Your task to perform on an android device: What's the news about the US dollar exchange rate? Image 0: 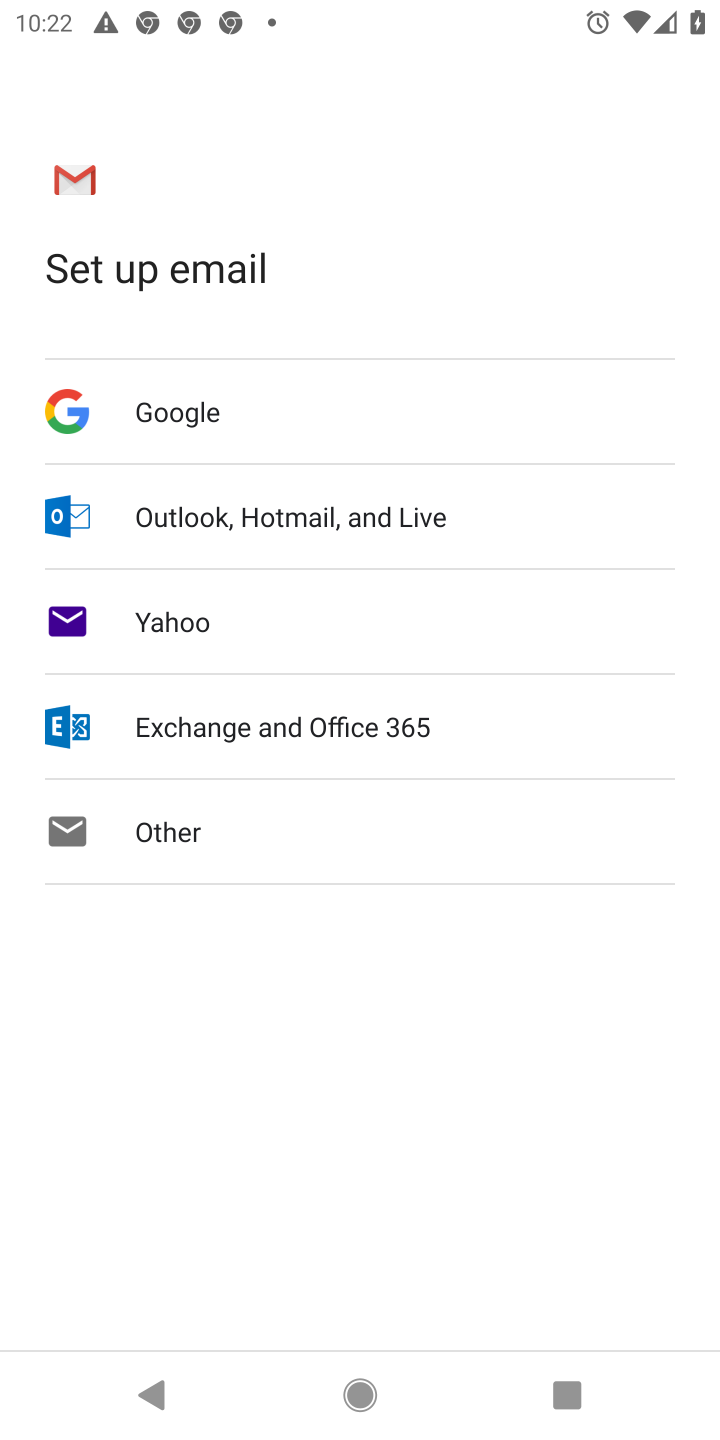
Step 0: press home button
Your task to perform on an android device: What's the news about the US dollar exchange rate? Image 1: 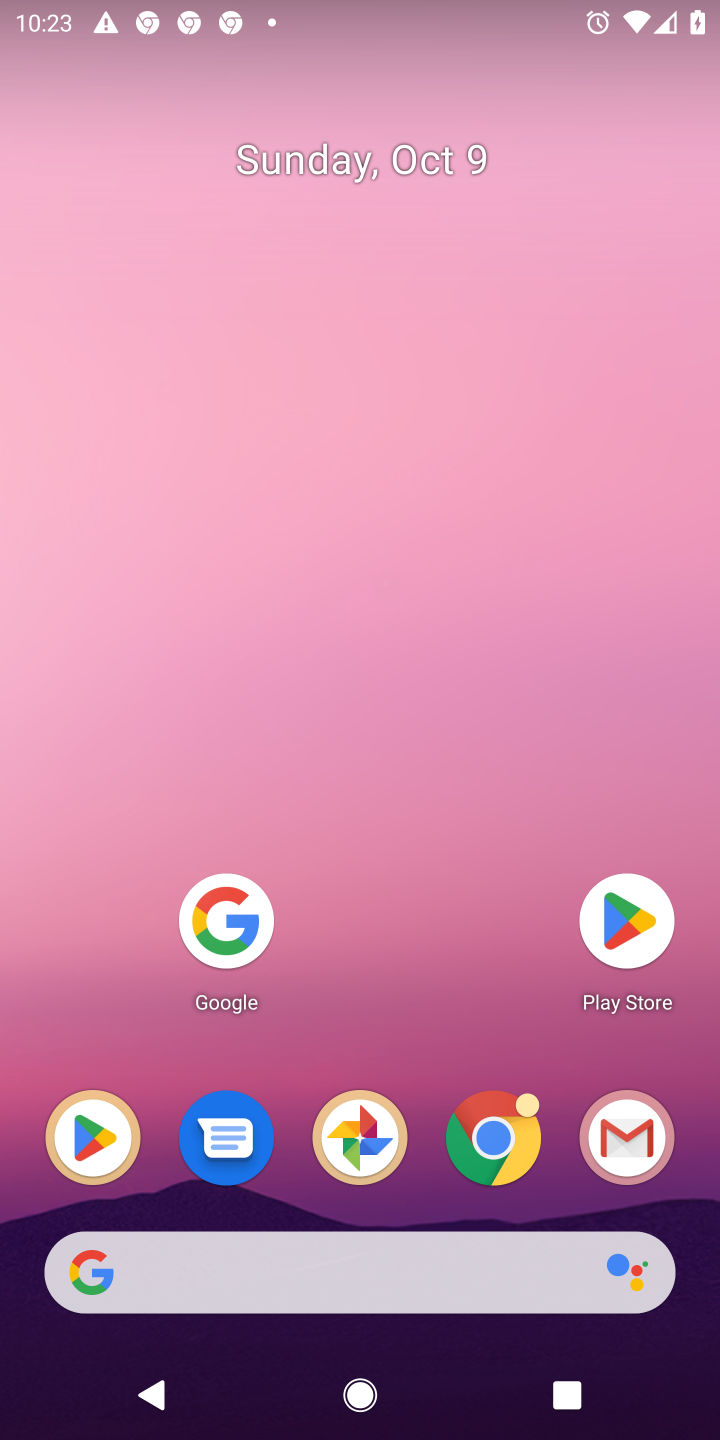
Step 1: click (247, 904)
Your task to perform on an android device: What's the news about the US dollar exchange rate? Image 2: 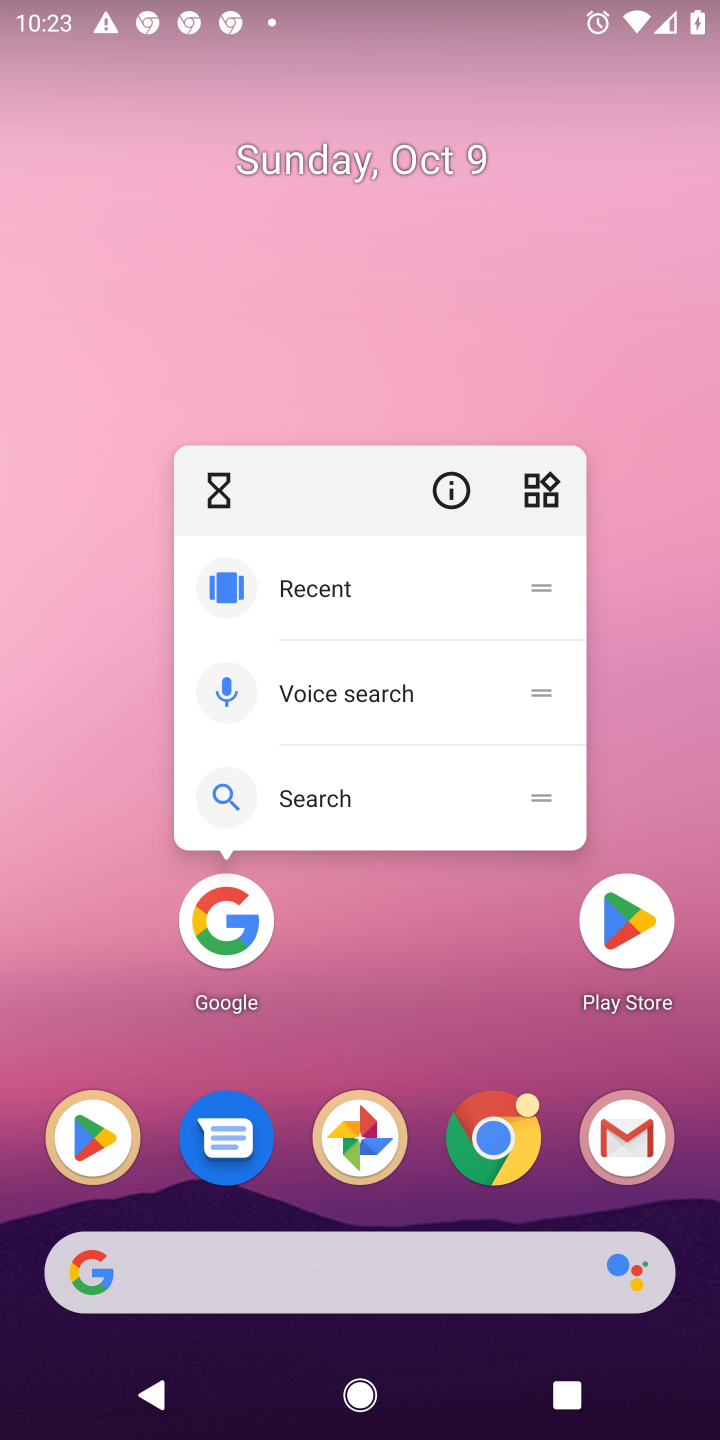
Step 2: click (228, 892)
Your task to perform on an android device: What's the news about the US dollar exchange rate? Image 3: 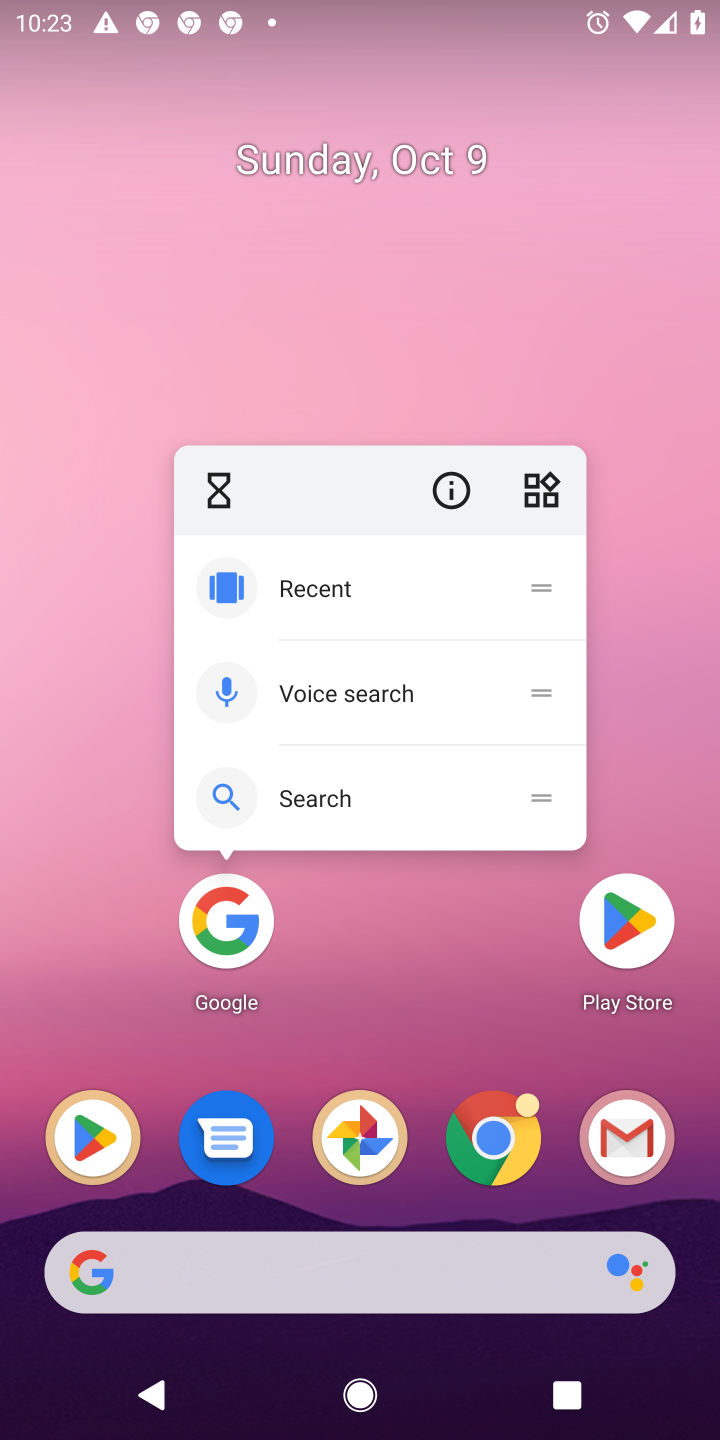
Step 3: click (228, 892)
Your task to perform on an android device: What's the news about the US dollar exchange rate? Image 4: 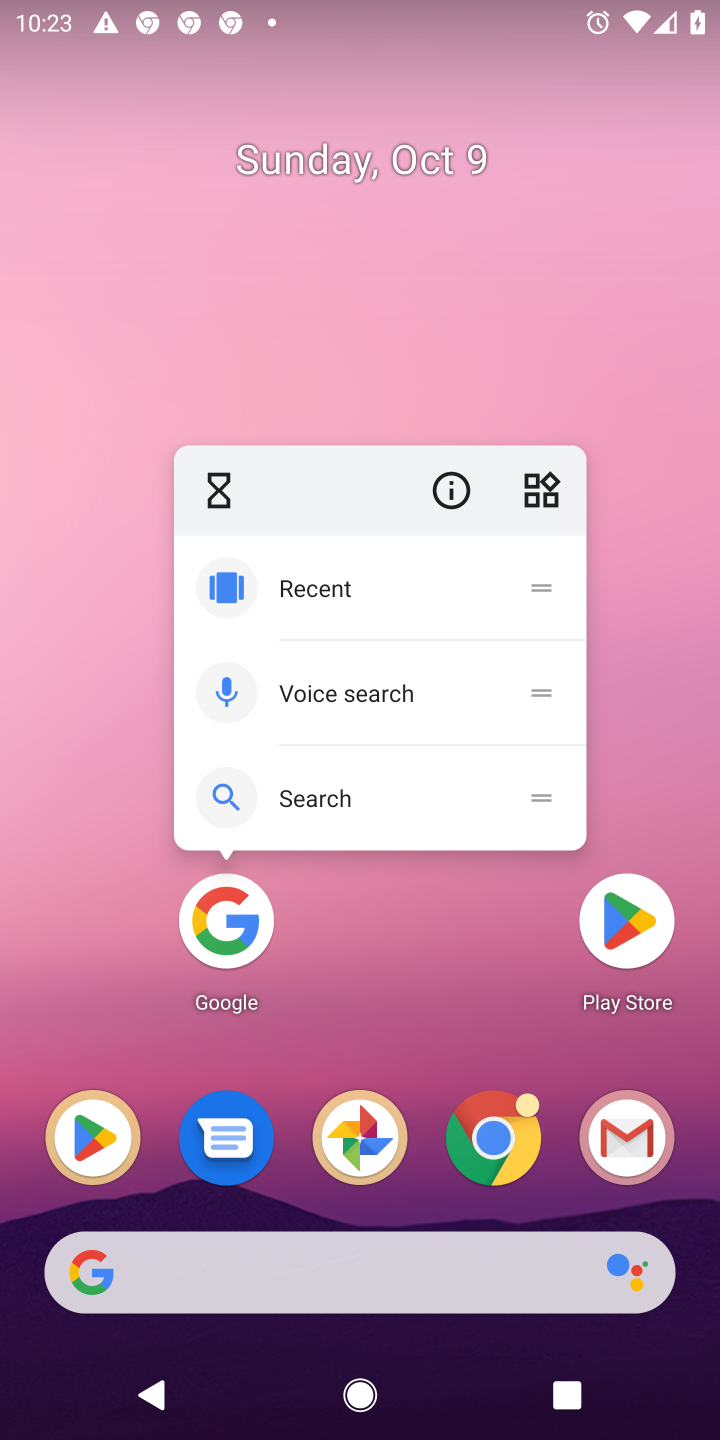
Step 4: click (225, 935)
Your task to perform on an android device: What's the news about the US dollar exchange rate? Image 5: 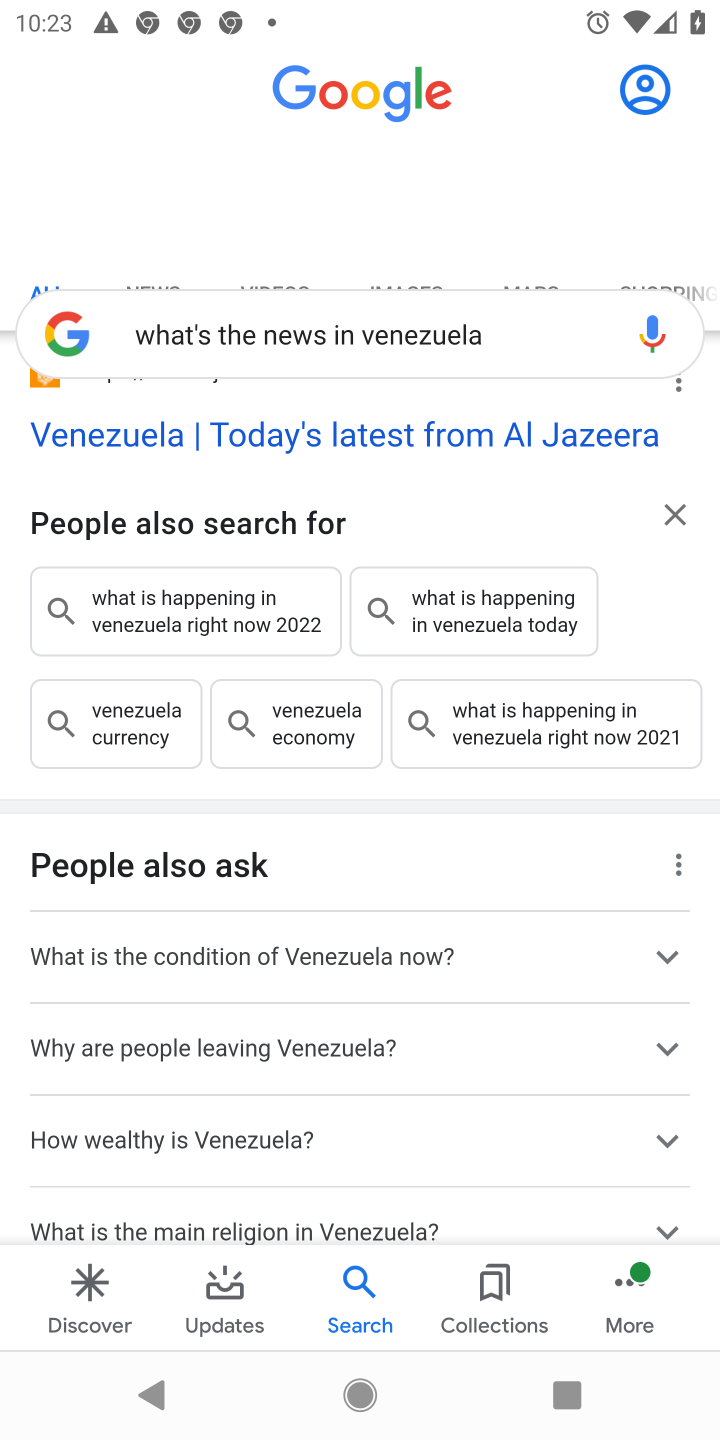
Step 5: click (512, 333)
Your task to perform on an android device: What's the news about the US dollar exchange rate? Image 6: 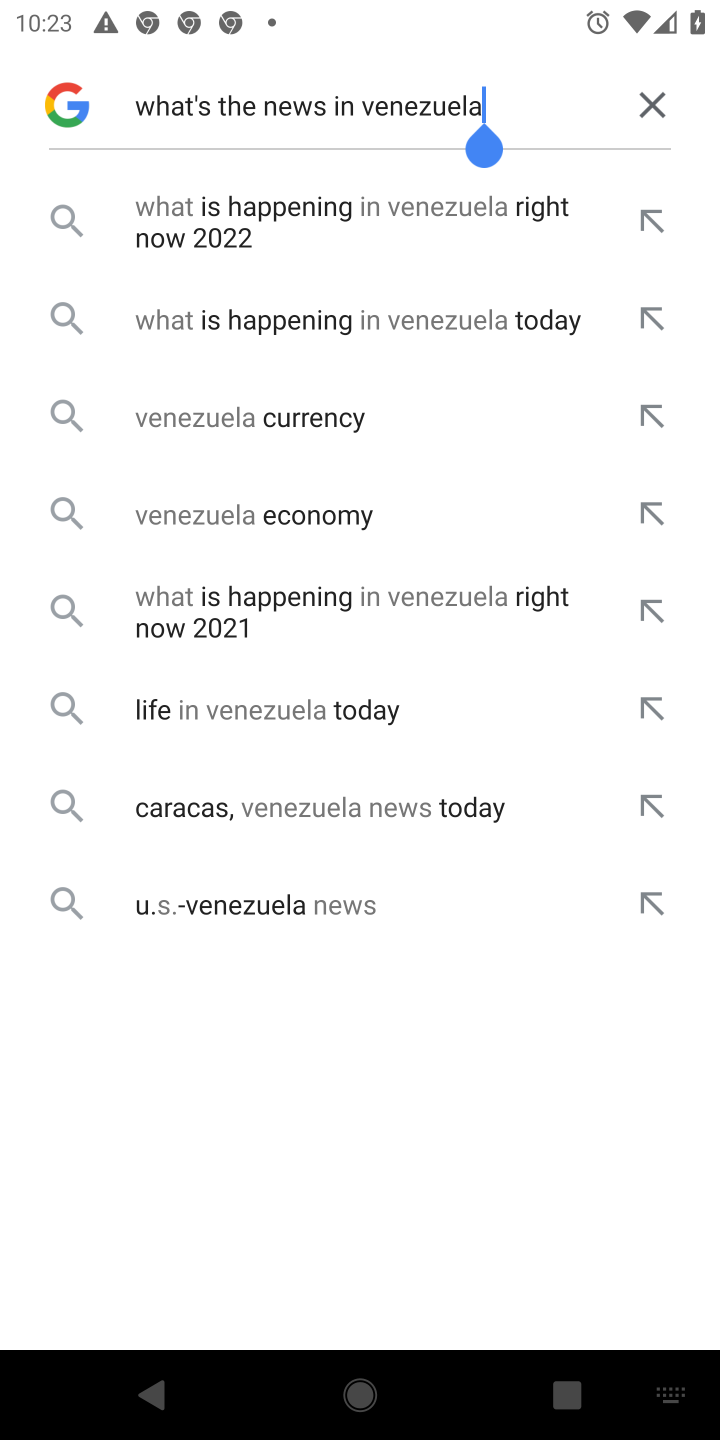
Step 6: click (643, 103)
Your task to perform on an android device: What's the news about the US dollar exchange rate? Image 7: 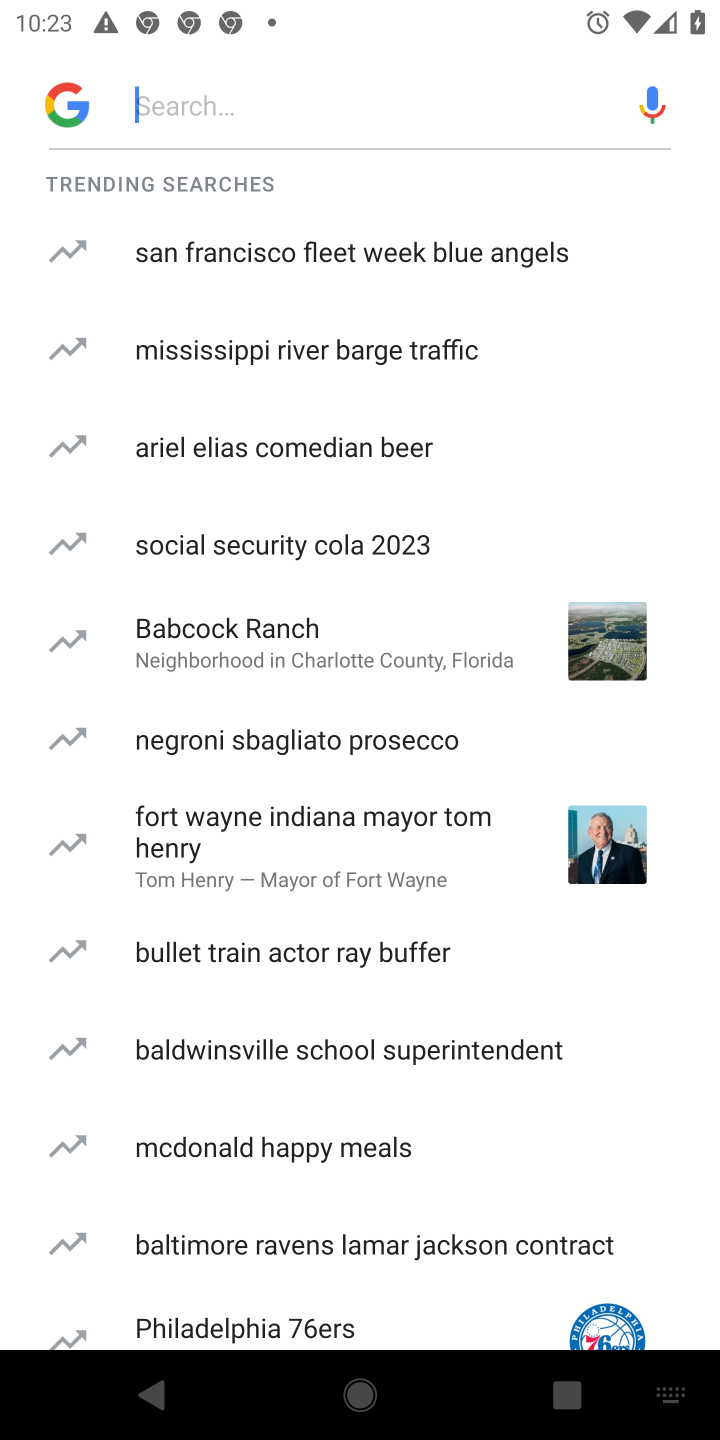
Step 7: click (354, 102)
Your task to perform on an android device: What's the news about the US dollar exchange rate? Image 8: 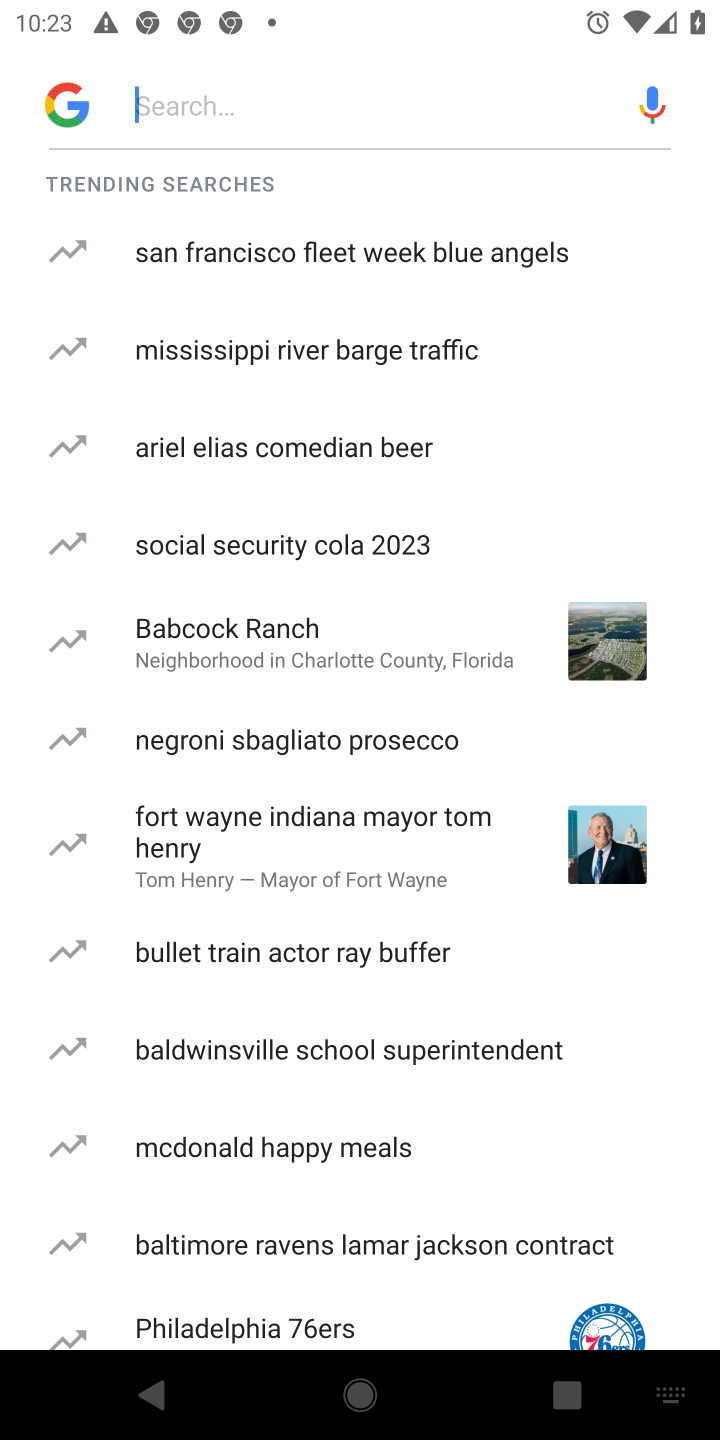
Step 8: type "What's the news about the US dollar exchange rate? "
Your task to perform on an android device: What's the news about the US dollar exchange rate? Image 9: 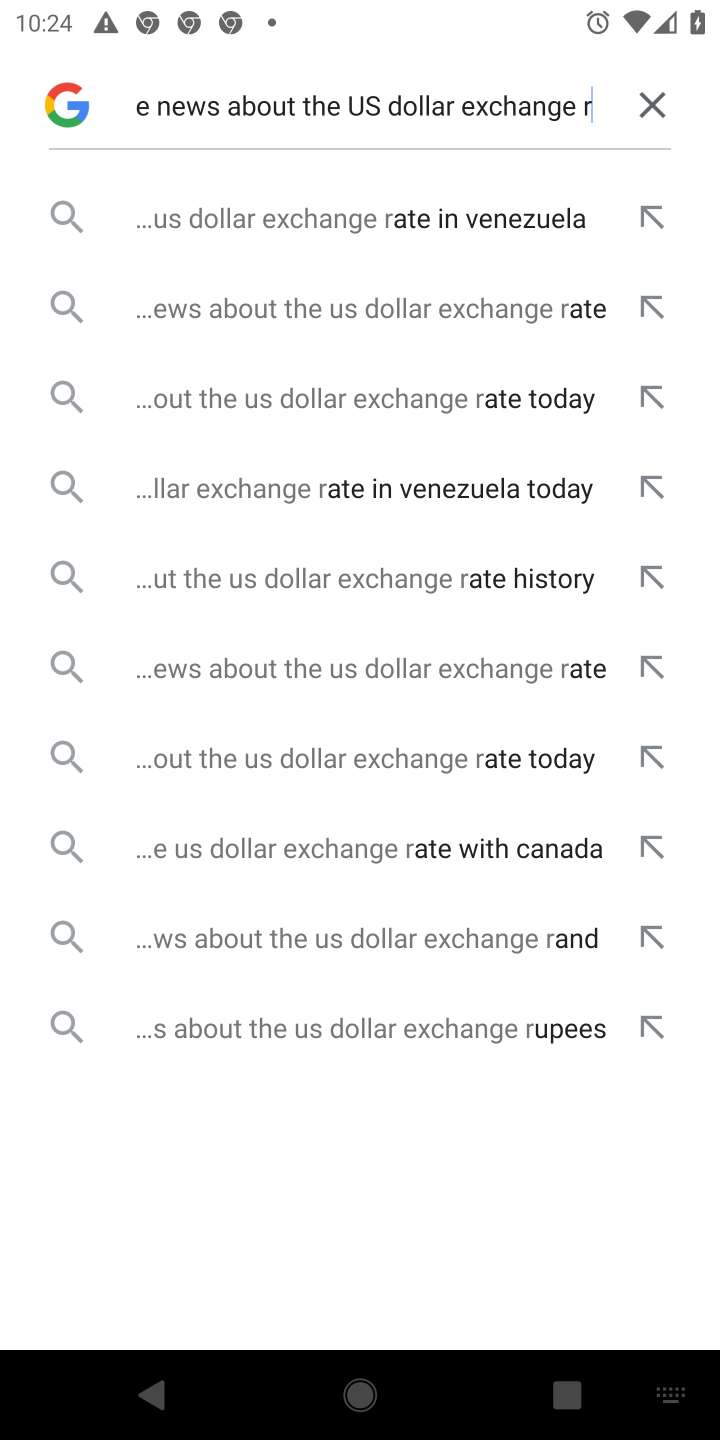
Step 9: click (264, 380)
Your task to perform on an android device: What's the news about the US dollar exchange rate? Image 10: 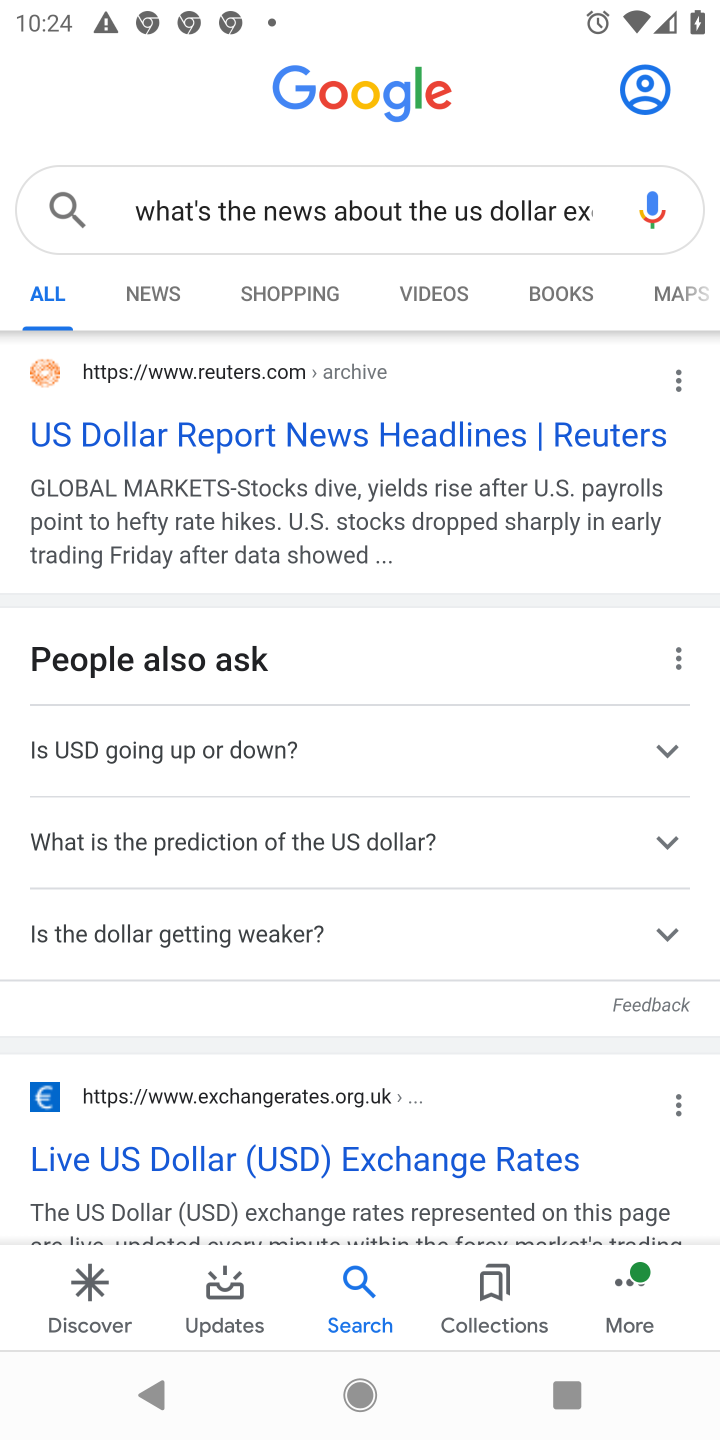
Step 10: click (350, 428)
Your task to perform on an android device: What's the news about the US dollar exchange rate? Image 11: 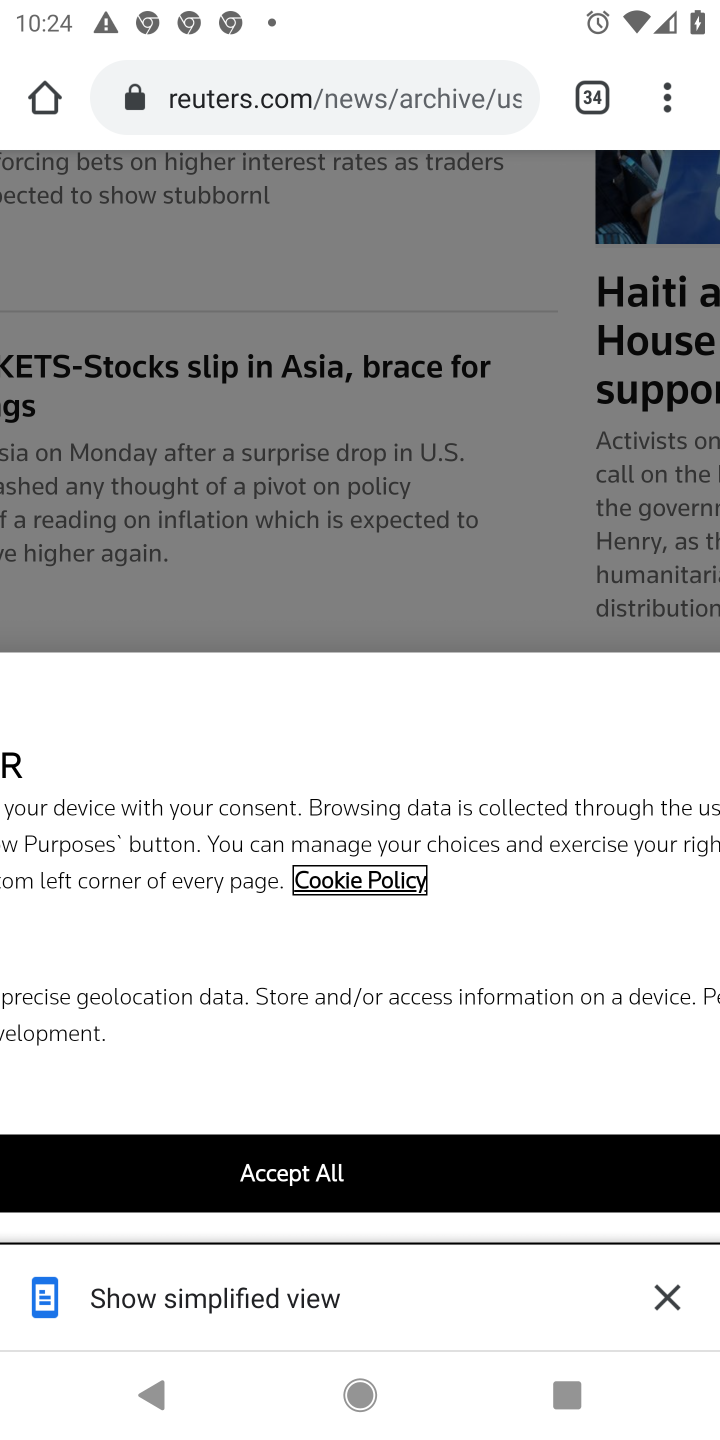
Step 11: click (660, 1295)
Your task to perform on an android device: What's the news about the US dollar exchange rate? Image 12: 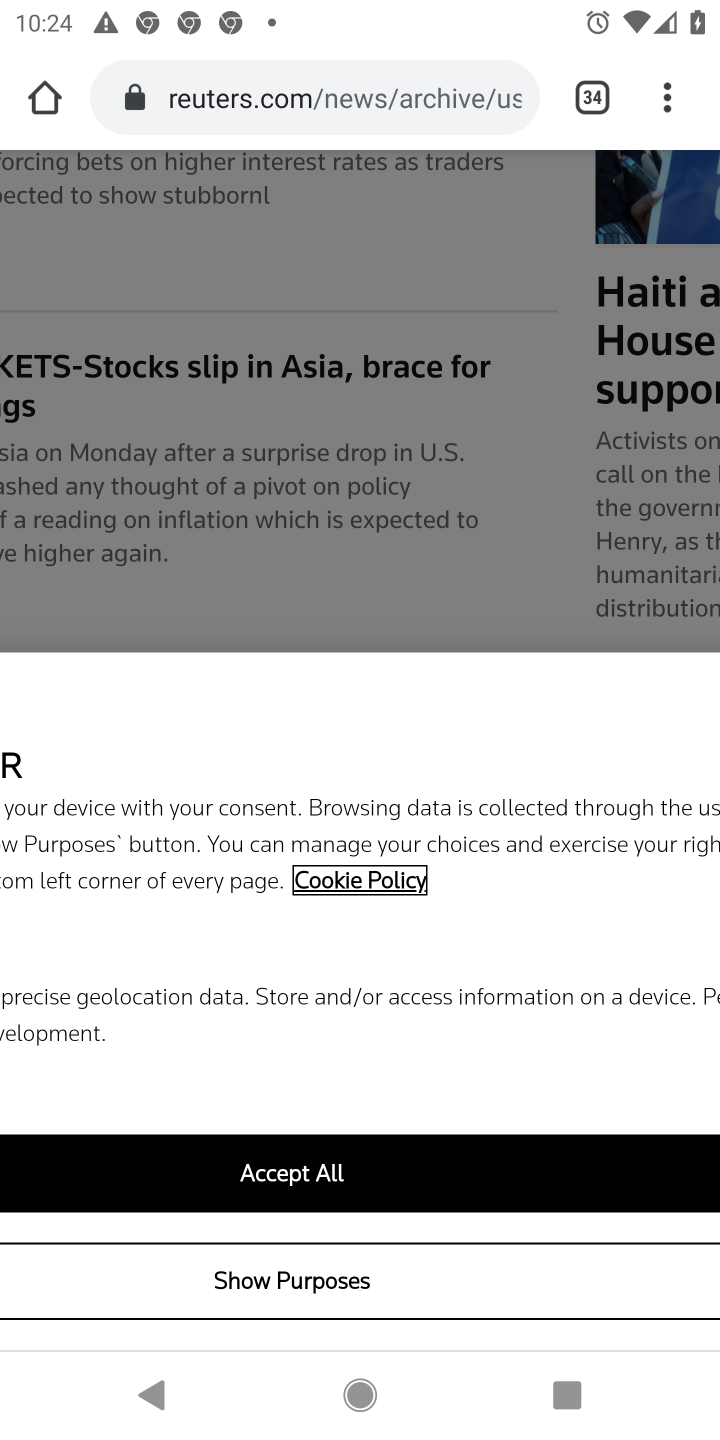
Step 12: click (389, 1165)
Your task to perform on an android device: What's the news about the US dollar exchange rate? Image 13: 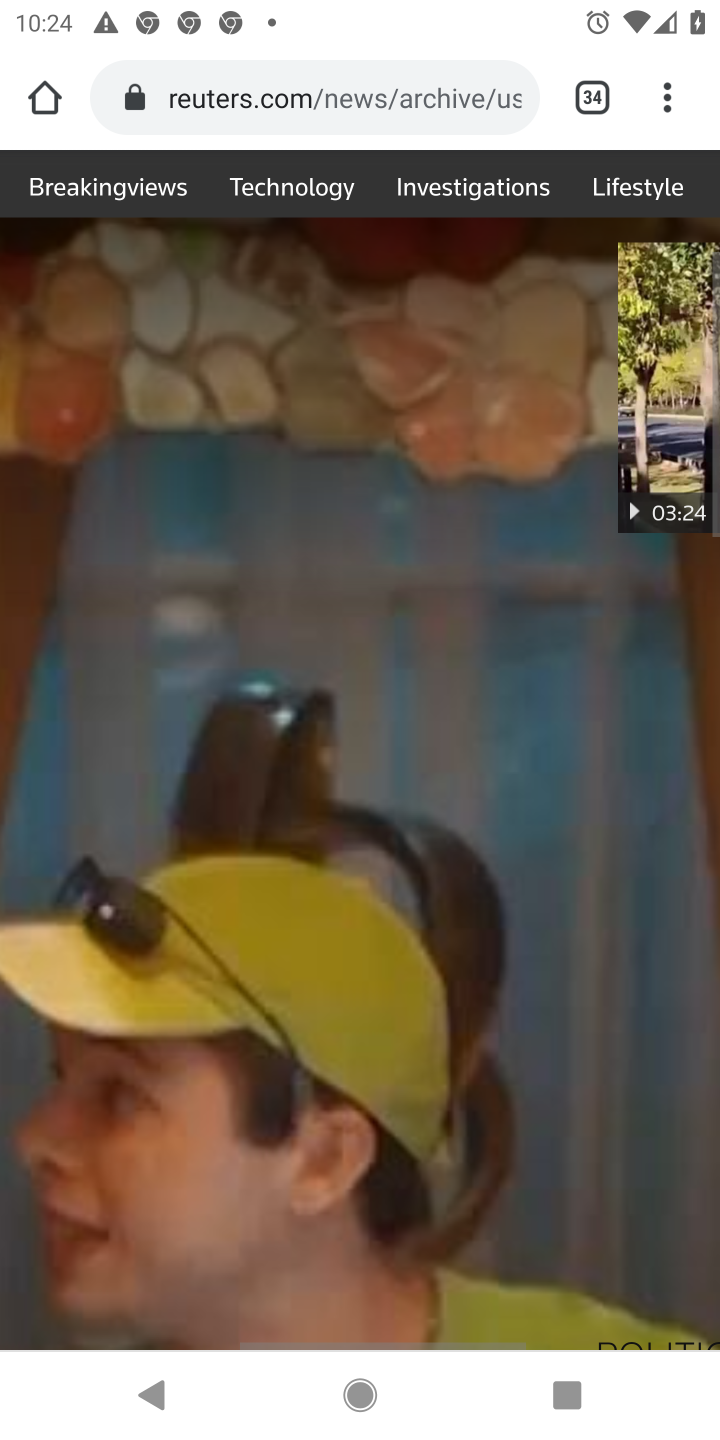
Step 13: drag from (233, 1254) to (379, 409)
Your task to perform on an android device: What's the news about the US dollar exchange rate? Image 14: 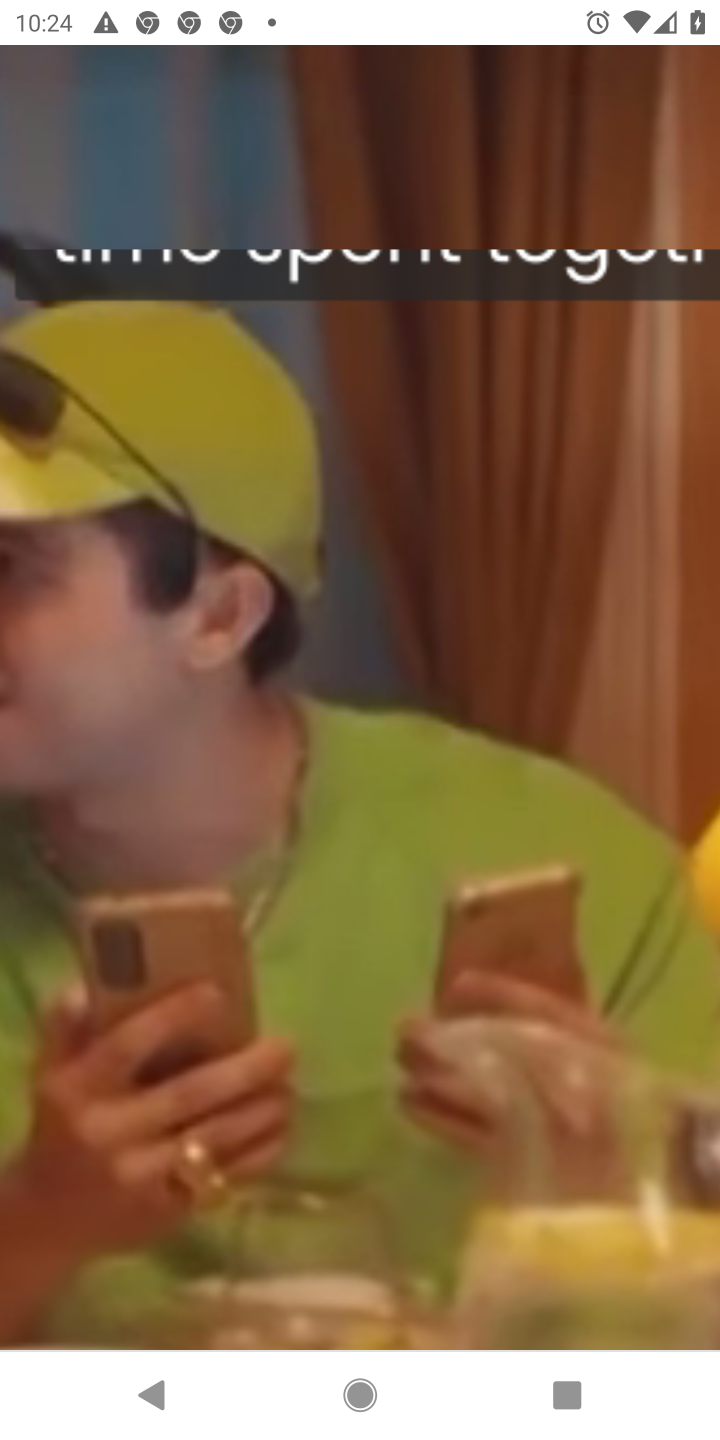
Step 14: press back button
Your task to perform on an android device: What's the news about the US dollar exchange rate? Image 15: 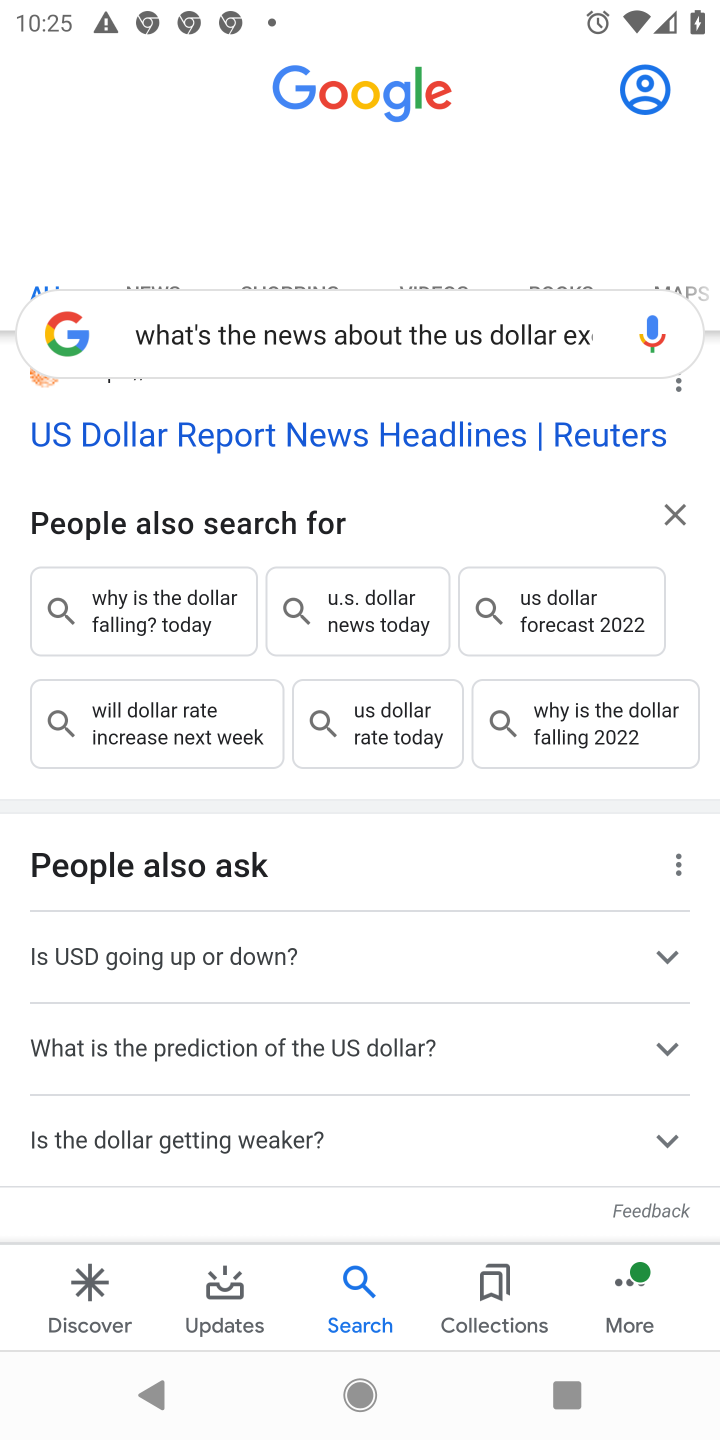
Step 15: drag from (378, 1161) to (471, 418)
Your task to perform on an android device: What's the news about the US dollar exchange rate? Image 16: 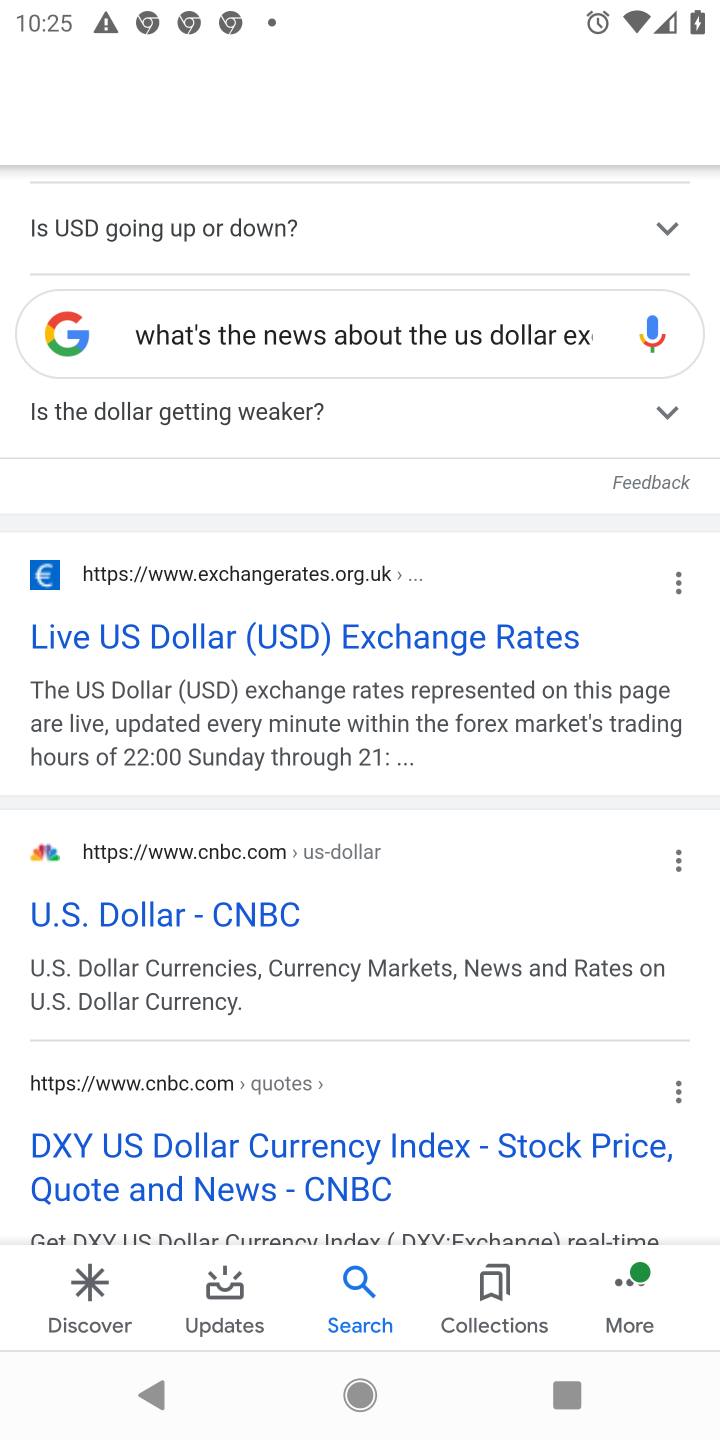
Step 16: click (357, 641)
Your task to perform on an android device: What's the news about the US dollar exchange rate? Image 17: 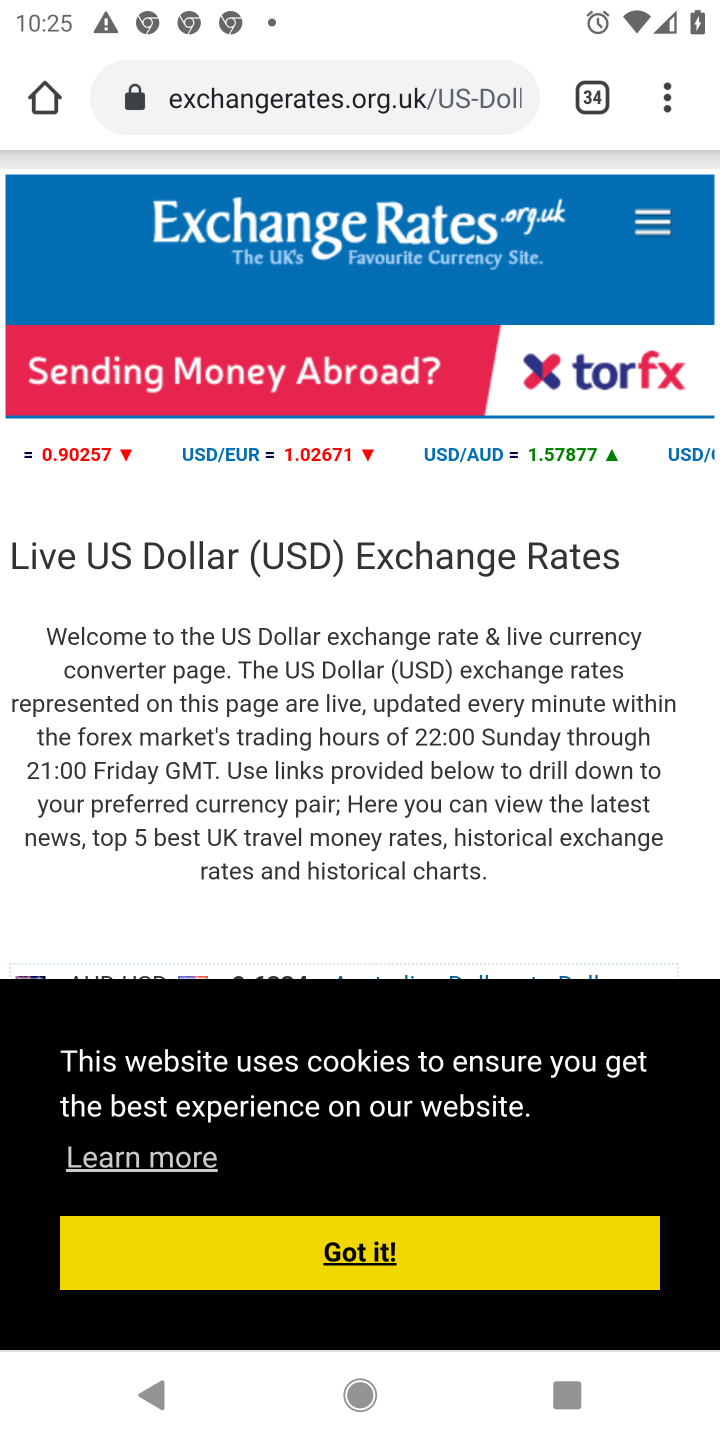
Step 17: click (419, 1254)
Your task to perform on an android device: What's the news about the US dollar exchange rate? Image 18: 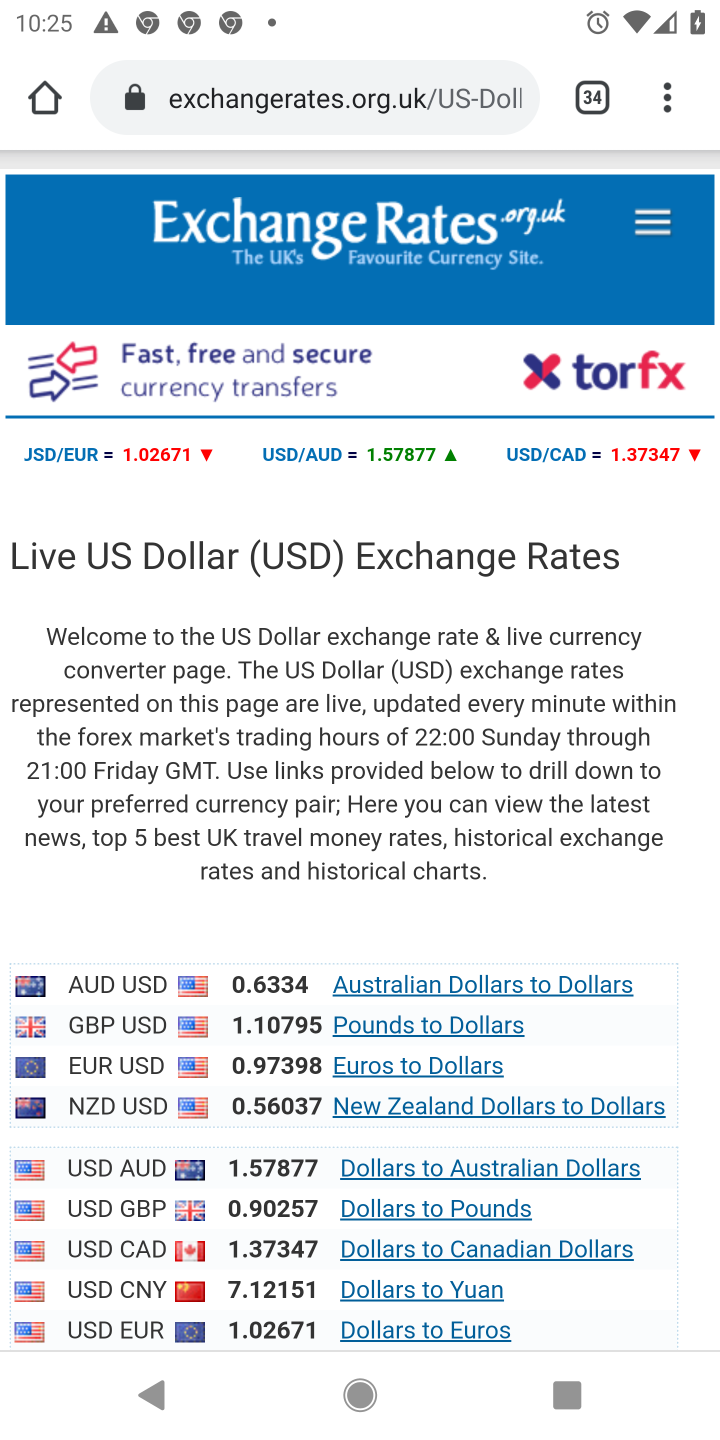
Step 18: task complete